Your task to perform on an android device: Go to Yahoo.com Image 0: 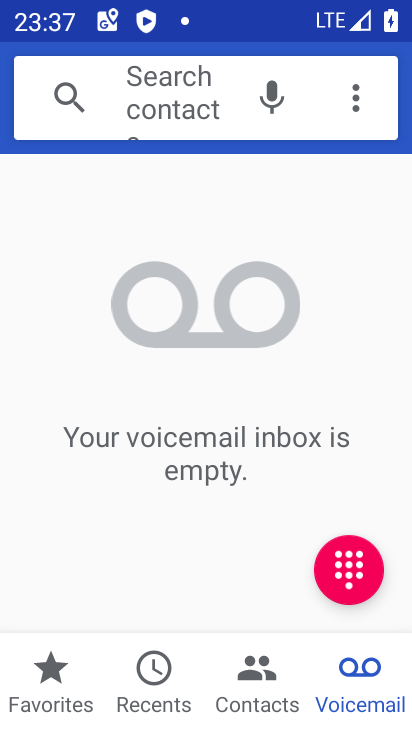
Step 0: press home button
Your task to perform on an android device: Go to Yahoo.com Image 1: 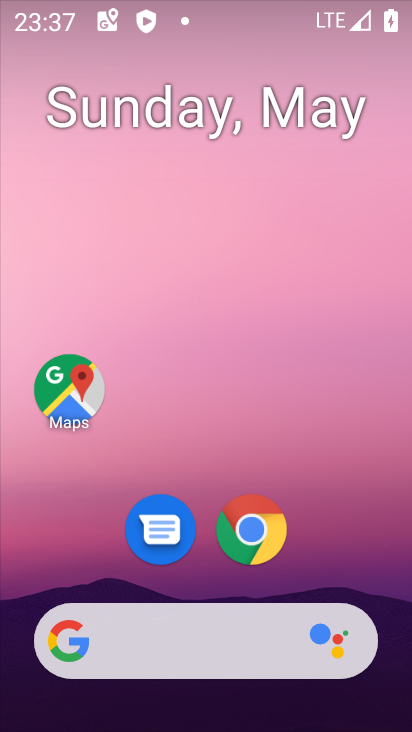
Step 1: drag from (386, 486) to (344, 133)
Your task to perform on an android device: Go to Yahoo.com Image 2: 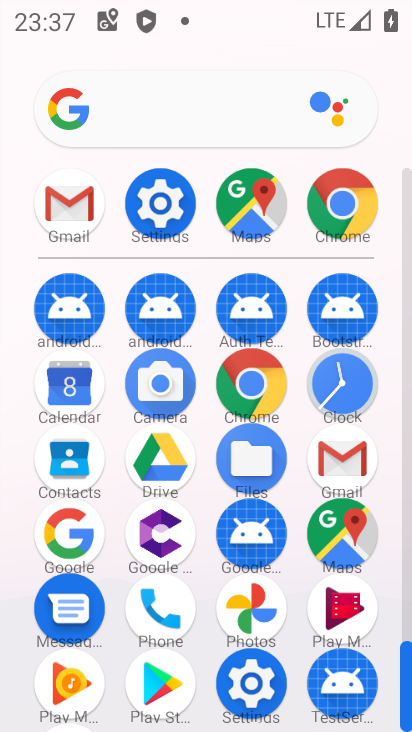
Step 2: click (230, 359)
Your task to perform on an android device: Go to Yahoo.com Image 3: 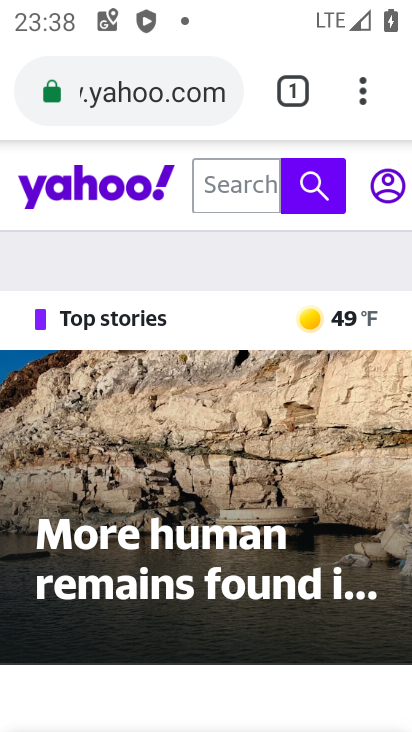
Step 3: click (206, 100)
Your task to perform on an android device: Go to Yahoo.com Image 4: 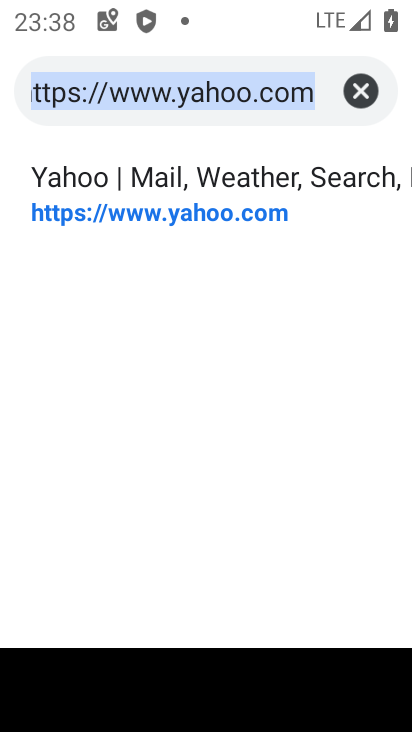
Step 4: click (354, 87)
Your task to perform on an android device: Go to Yahoo.com Image 5: 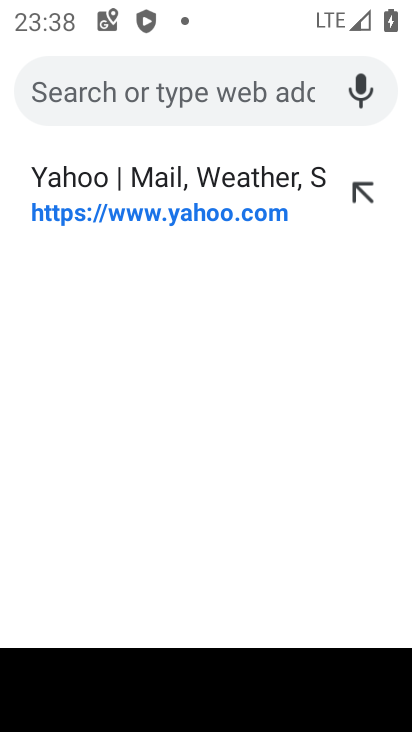
Step 5: click (163, 186)
Your task to perform on an android device: Go to Yahoo.com Image 6: 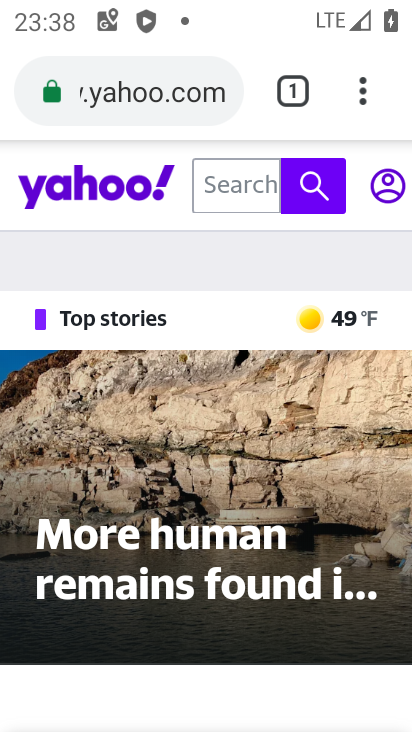
Step 6: task complete